Your task to perform on an android device: turn on notifications settings in the gmail app Image 0: 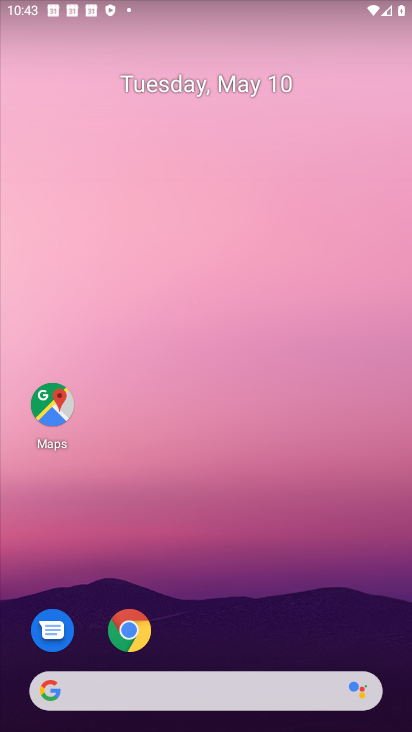
Step 0: drag from (211, 725) to (406, 0)
Your task to perform on an android device: turn on notifications settings in the gmail app Image 1: 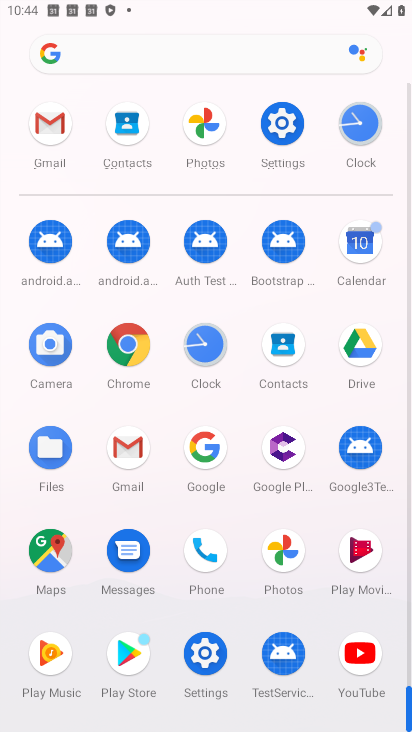
Step 1: click (65, 124)
Your task to perform on an android device: turn on notifications settings in the gmail app Image 2: 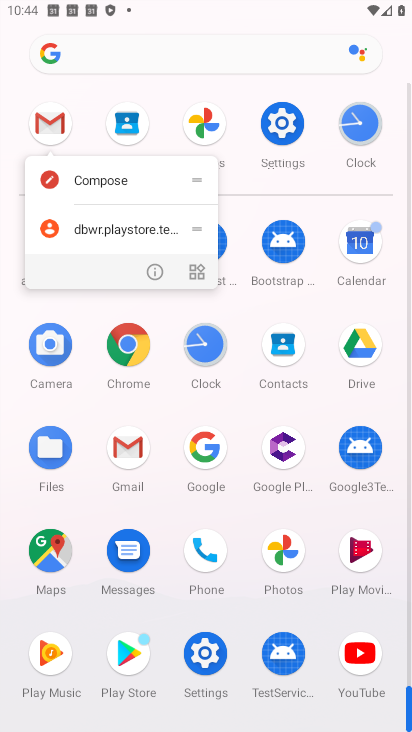
Step 2: click (158, 268)
Your task to perform on an android device: turn on notifications settings in the gmail app Image 3: 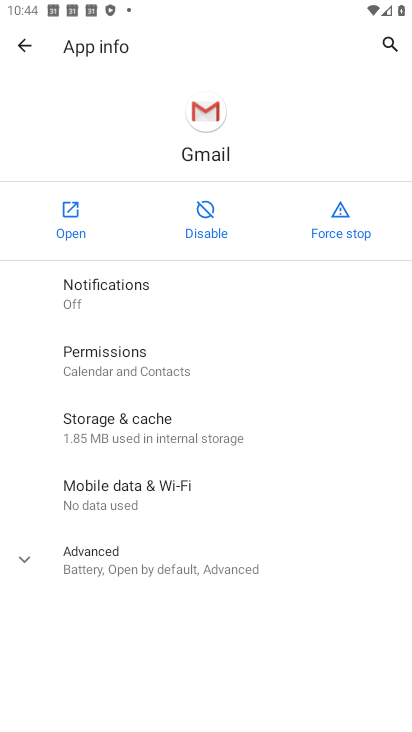
Step 3: click (173, 302)
Your task to perform on an android device: turn on notifications settings in the gmail app Image 4: 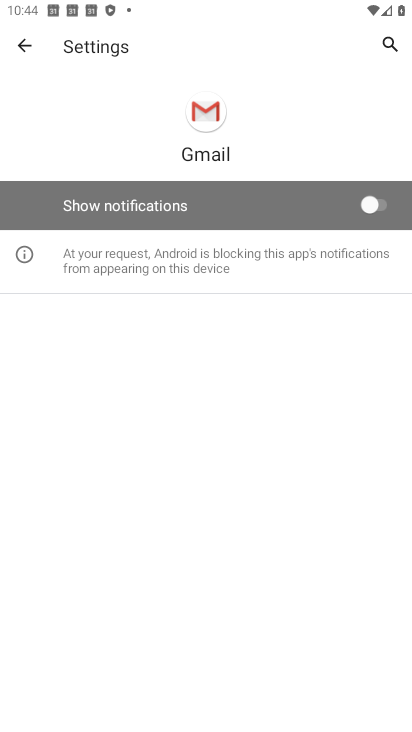
Step 4: click (373, 199)
Your task to perform on an android device: turn on notifications settings in the gmail app Image 5: 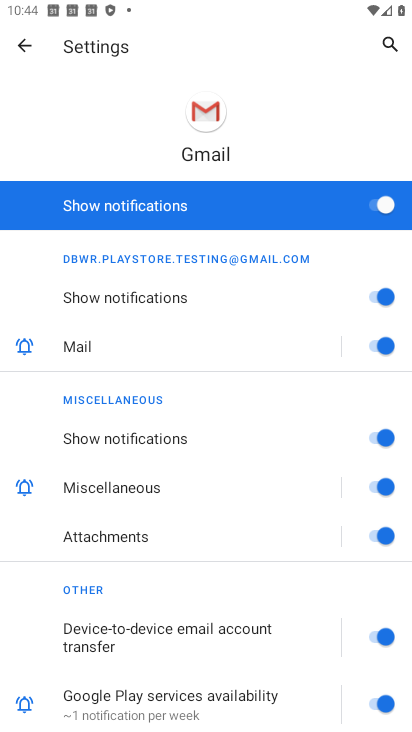
Step 5: task complete